Your task to perform on an android device: toggle priority inbox in the gmail app Image 0: 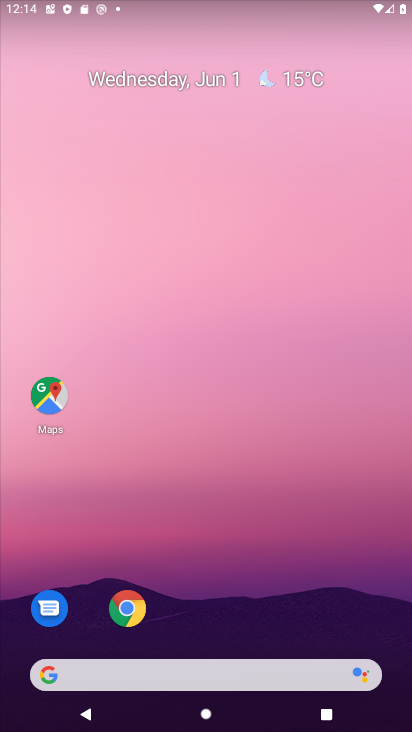
Step 0: drag from (206, 636) to (252, 191)
Your task to perform on an android device: toggle priority inbox in the gmail app Image 1: 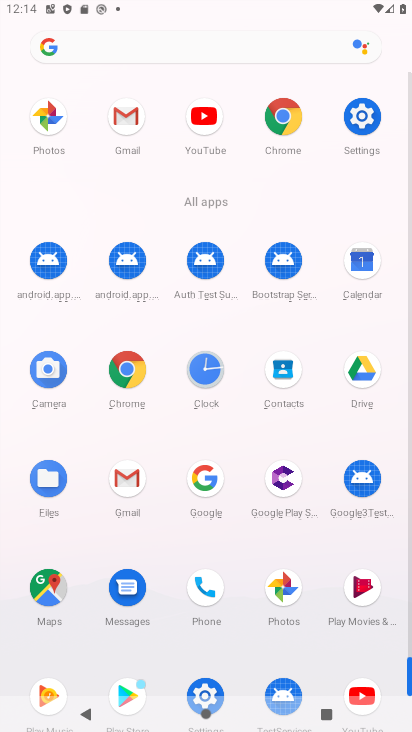
Step 1: click (129, 494)
Your task to perform on an android device: toggle priority inbox in the gmail app Image 2: 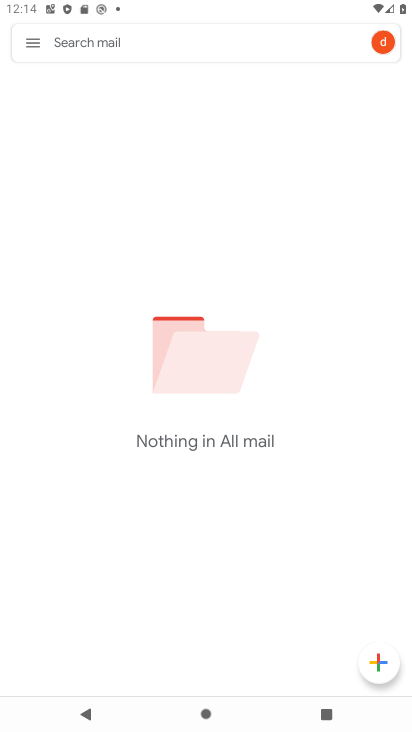
Step 2: click (25, 43)
Your task to perform on an android device: toggle priority inbox in the gmail app Image 3: 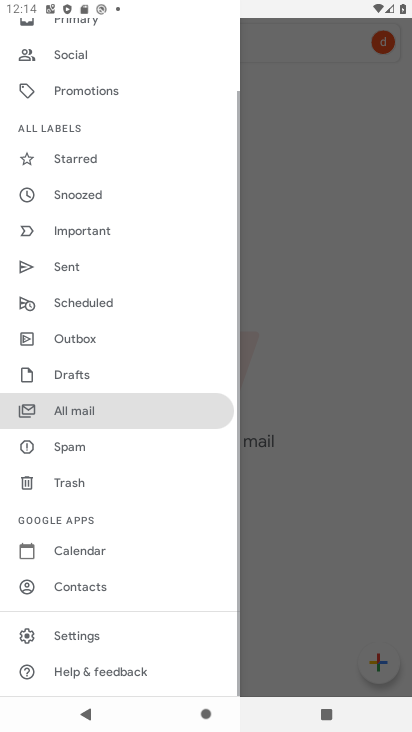
Step 3: drag from (121, 571) to (163, 435)
Your task to perform on an android device: toggle priority inbox in the gmail app Image 4: 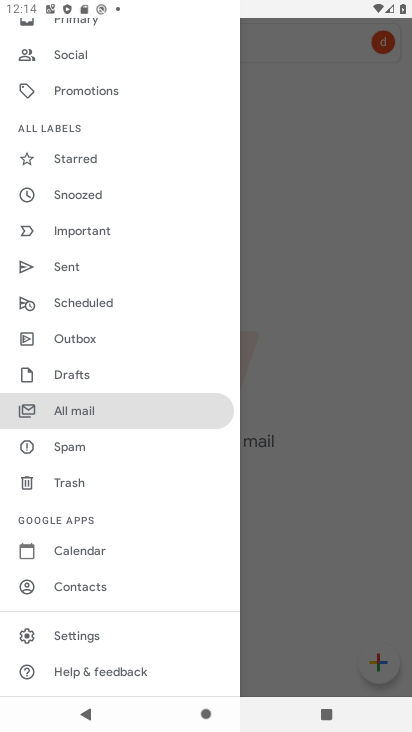
Step 4: click (86, 637)
Your task to perform on an android device: toggle priority inbox in the gmail app Image 5: 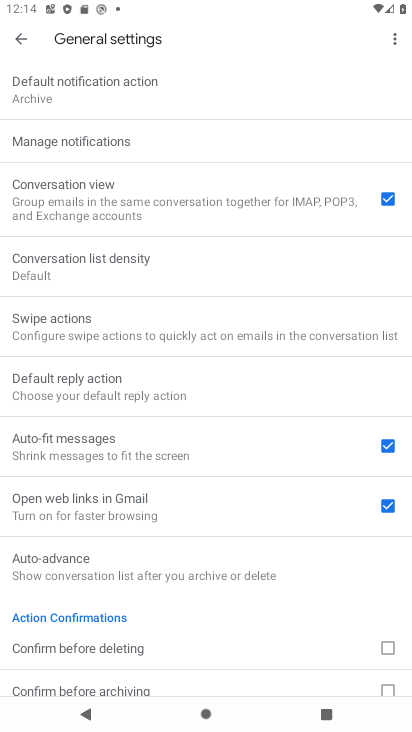
Step 5: click (14, 37)
Your task to perform on an android device: toggle priority inbox in the gmail app Image 6: 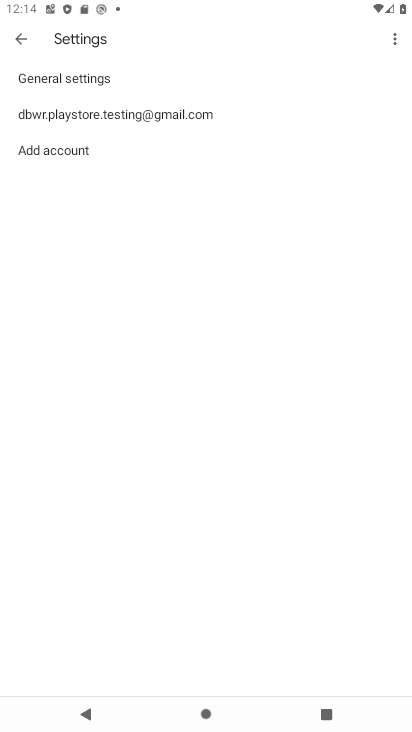
Step 6: click (113, 111)
Your task to perform on an android device: toggle priority inbox in the gmail app Image 7: 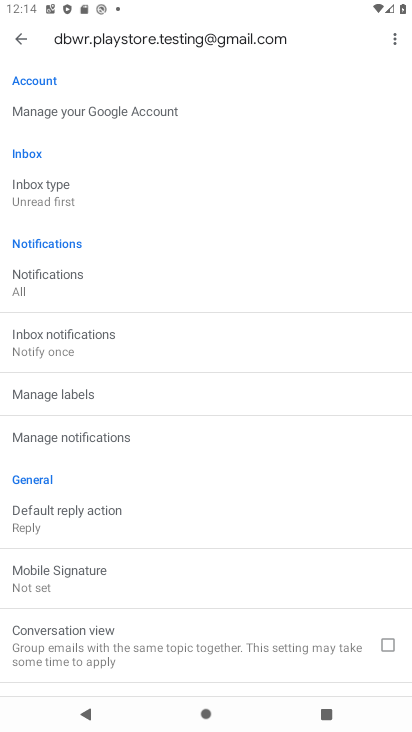
Step 7: click (75, 196)
Your task to perform on an android device: toggle priority inbox in the gmail app Image 8: 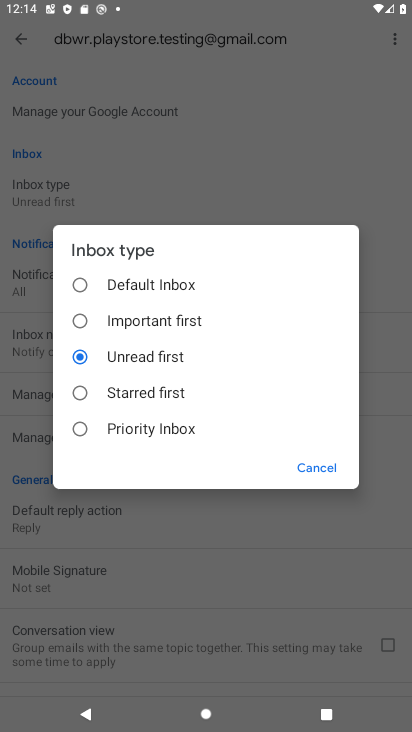
Step 8: click (113, 432)
Your task to perform on an android device: toggle priority inbox in the gmail app Image 9: 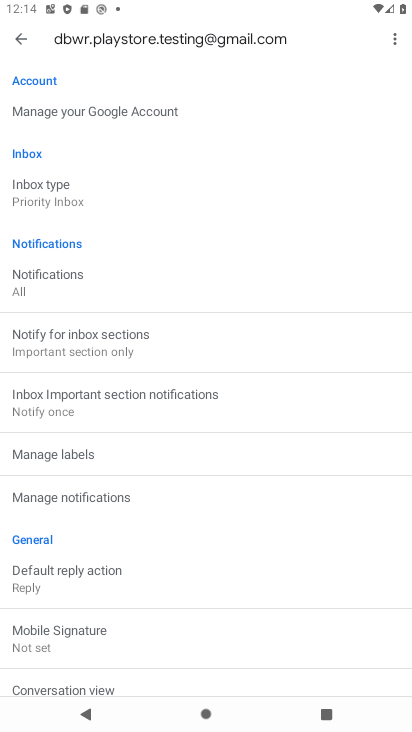
Step 9: task complete